Your task to perform on an android device: toggle notification dots Image 0: 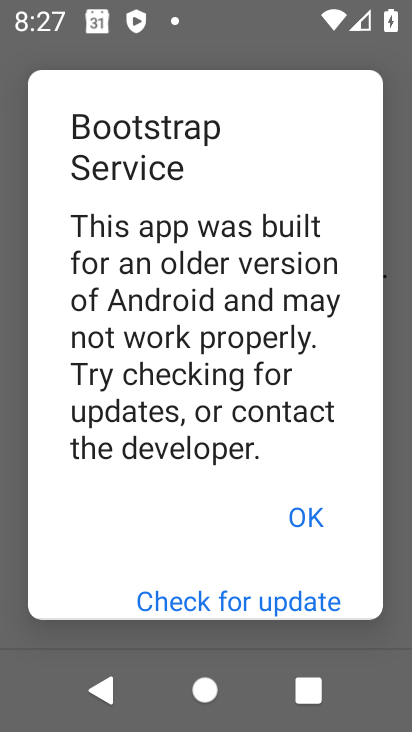
Step 0: press home button
Your task to perform on an android device: toggle notification dots Image 1: 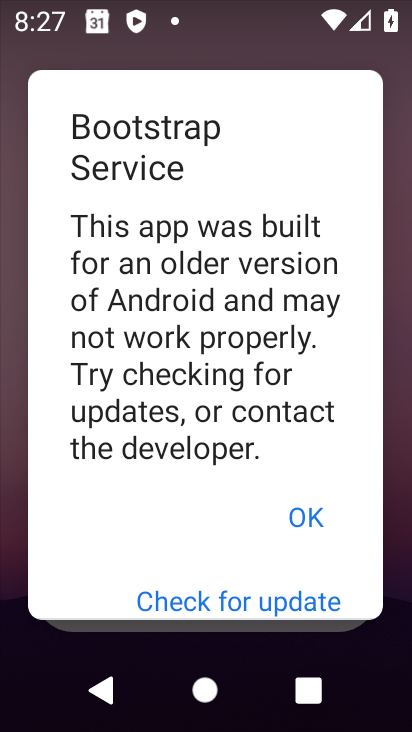
Step 1: click (296, 510)
Your task to perform on an android device: toggle notification dots Image 2: 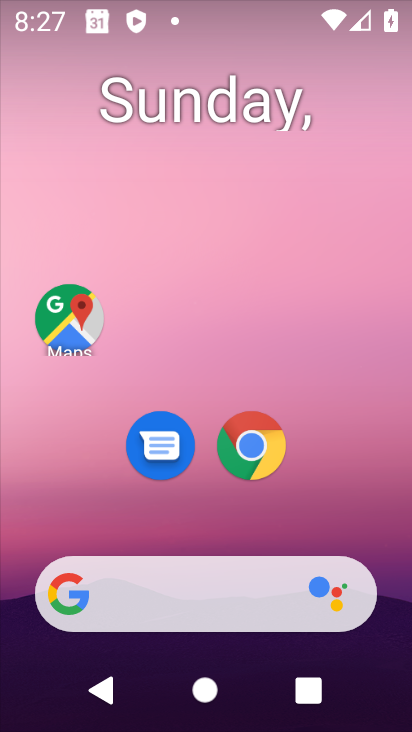
Step 2: drag from (342, 482) to (297, 68)
Your task to perform on an android device: toggle notification dots Image 3: 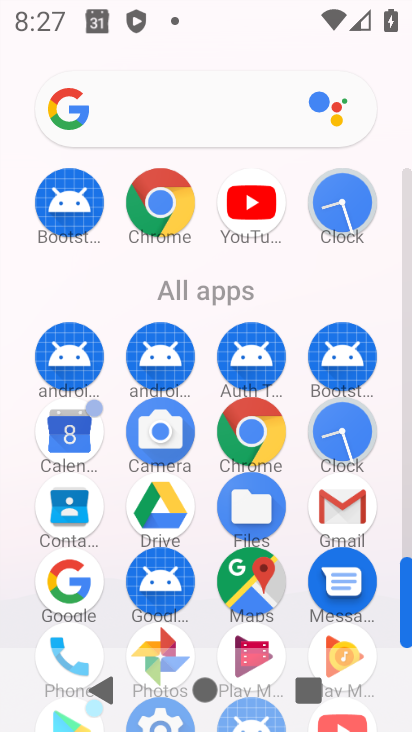
Step 3: drag from (197, 610) to (232, 303)
Your task to perform on an android device: toggle notification dots Image 4: 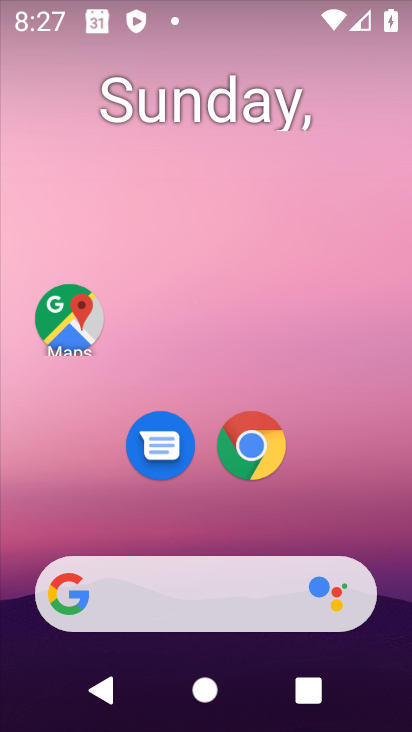
Step 4: drag from (392, 475) to (307, 163)
Your task to perform on an android device: toggle notification dots Image 5: 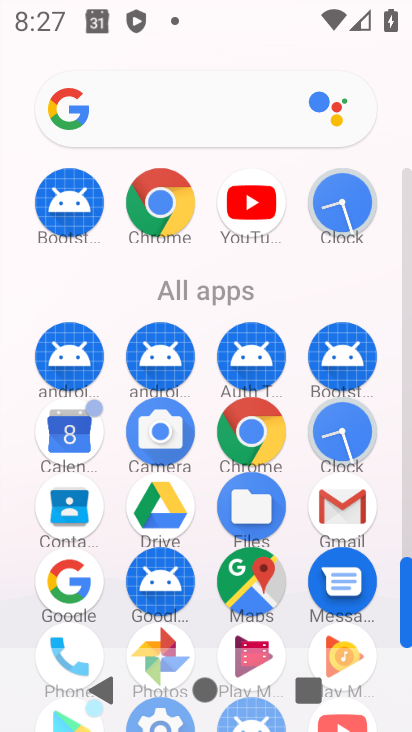
Step 5: drag from (207, 613) to (201, 263)
Your task to perform on an android device: toggle notification dots Image 6: 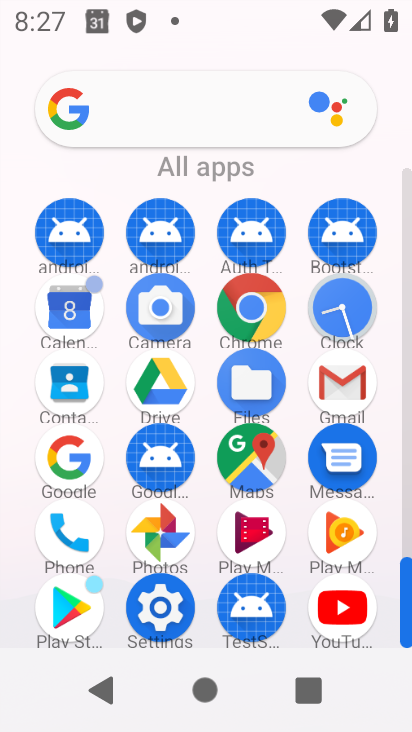
Step 6: click (169, 595)
Your task to perform on an android device: toggle notification dots Image 7: 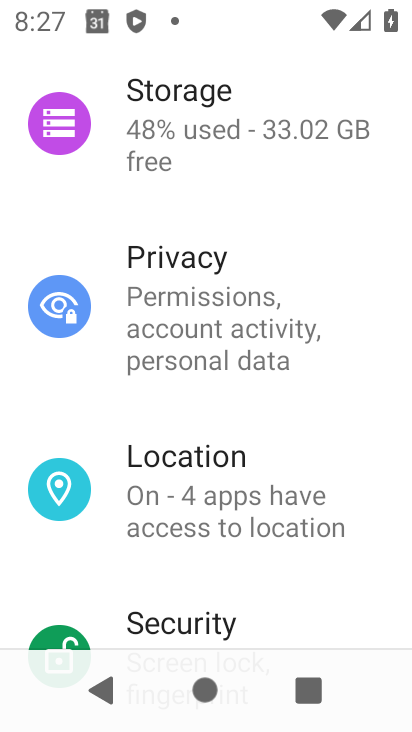
Step 7: drag from (160, 565) to (205, 182)
Your task to perform on an android device: toggle notification dots Image 8: 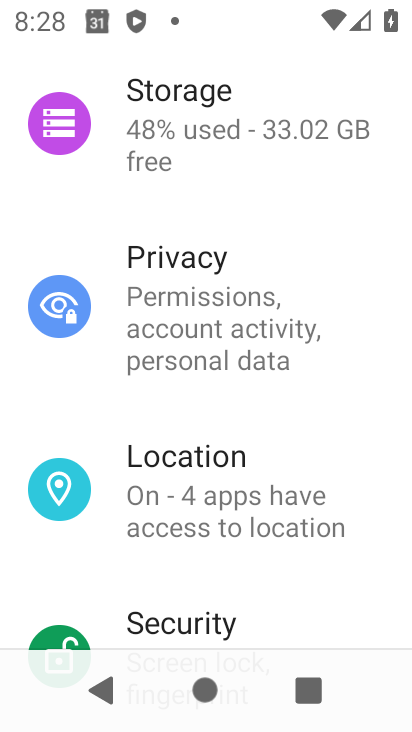
Step 8: drag from (365, 557) to (338, 176)
Your task to perform on an android device: toggle notification dots Image 9: 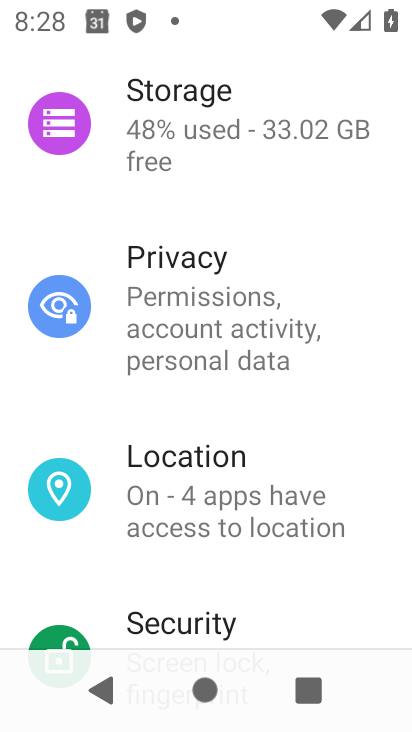
Step 9: drag from (332, 592) to (329, 175)
Your task to perform on an android device: toggle notification dots Image 10: 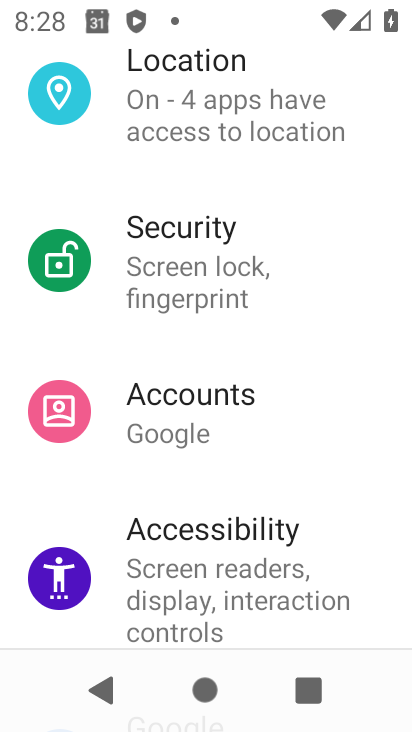
Step 10: drag from (280, 568) to (294, 232)
Your task to perform on an android device: toggle notification dots Image 11: 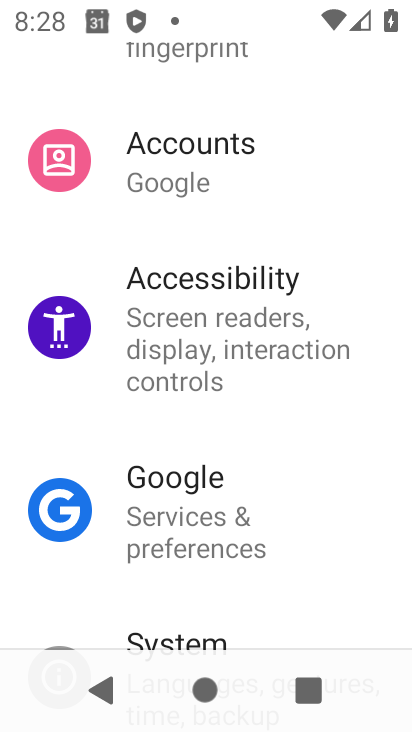
Step 11: drag from (254, 535) to (321, 209)
Your task to perform on an android device: toggle notification dots Image 12: 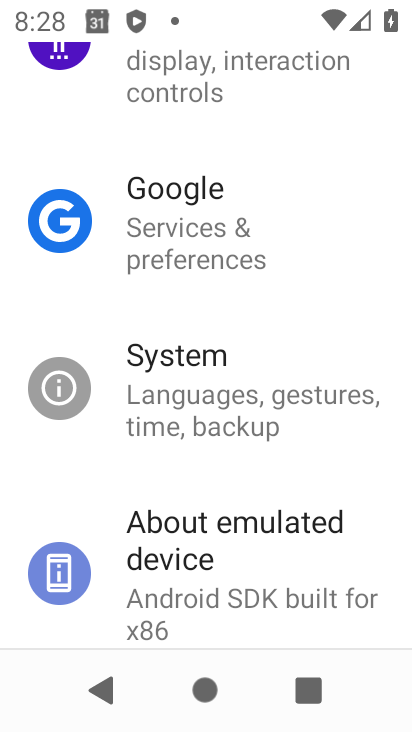
Step 12: drag from (257, 502) to (314, 167)
Your task to perform on an android device: toggle notification dots Image 13: 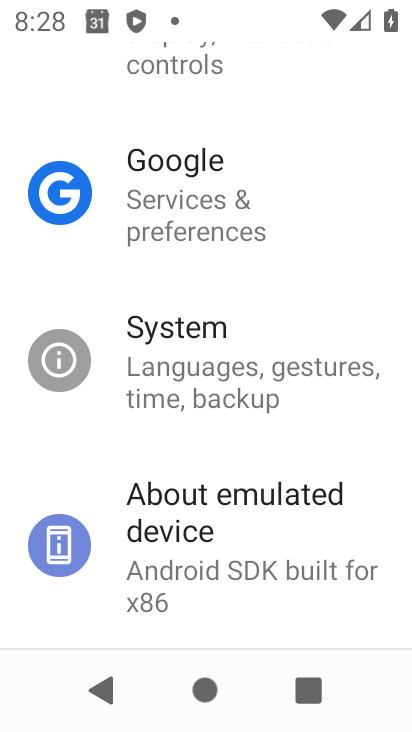
Step 13: drag from (308, 193) to (280, 525)
Your task to perform on an android device: toggle notification dots Image 14: 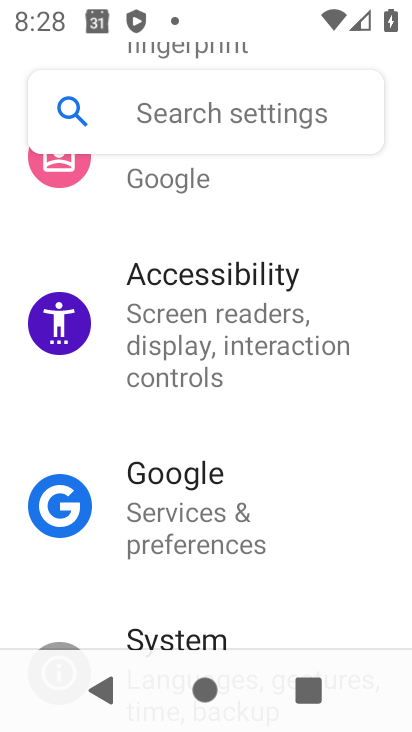
Step 14: drag from (291, 202) to (227, 529)
Your task to perform on an android device: toggle notification dots Image 15: 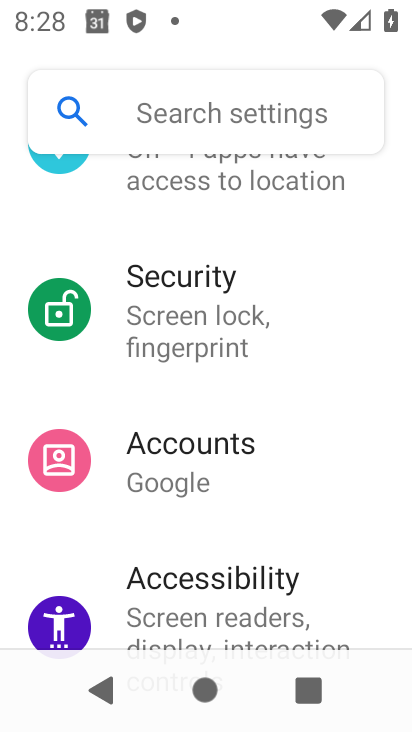
Step 15: drag from (226, 294) to (214, 587)
Your task to perform on an android device: toggle notification dots Image 16: 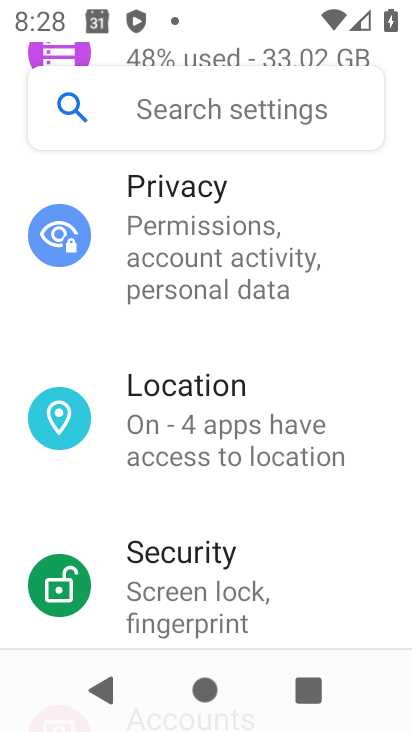
Step 16: drag from (241, 332) to (234, 595)
Your task to perform on an android device: toggle notification dots Image 17: 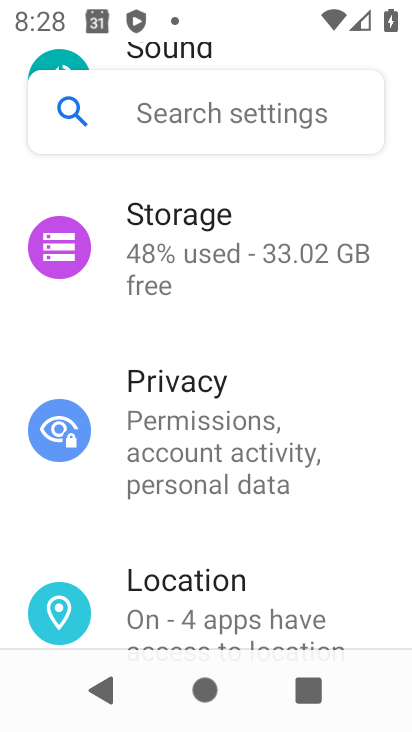
Step 17: drag from (245, 249) to (229, 588)
Your task to perform on an android device: toggle notification dots Image 18: 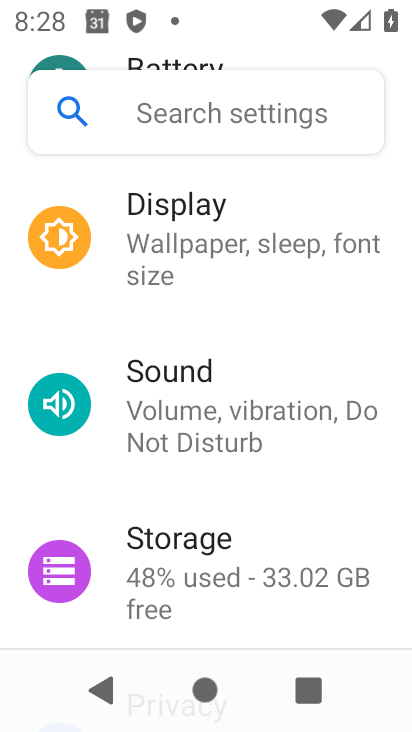
Step 18: drag from (215, 264) to (221, 511)
Your task to perform on an android device: toggle notification dots Image 19: 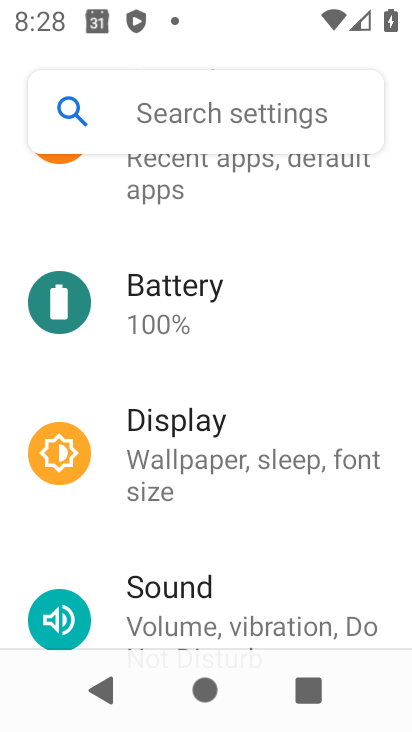
Step 19: drag from (311, 311) to (279, 545)
Your task to perform on an android device: toggle notification dots Image 20: 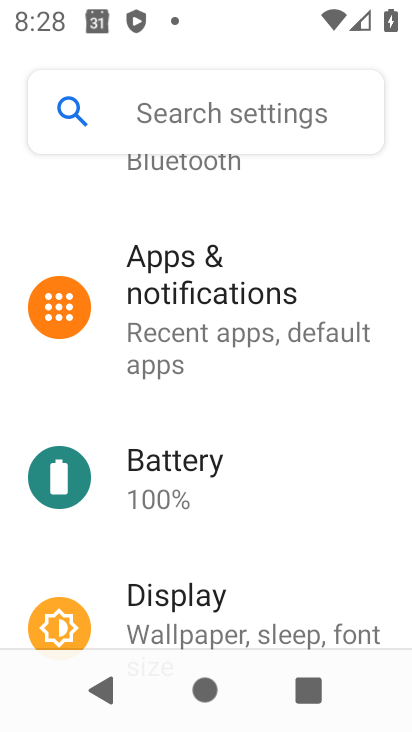
Step 20: click (271, 345)
Your task to perform on an android device: toggle notification dots Image 21: 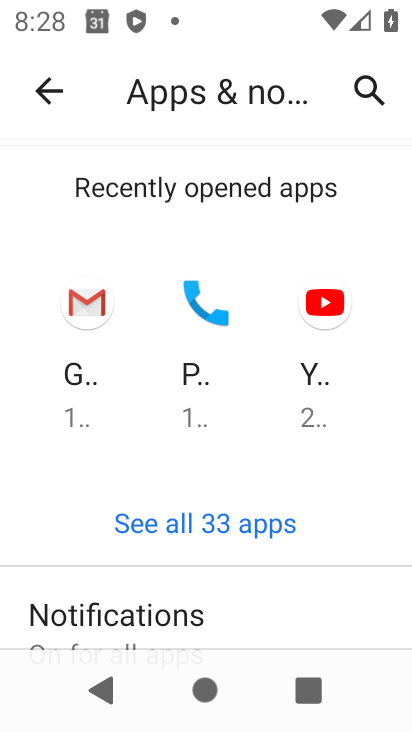
Step 21: drag from (330, 623) to (333, 153)
Your task to perform on an android device: toggle notification dots Image 22: 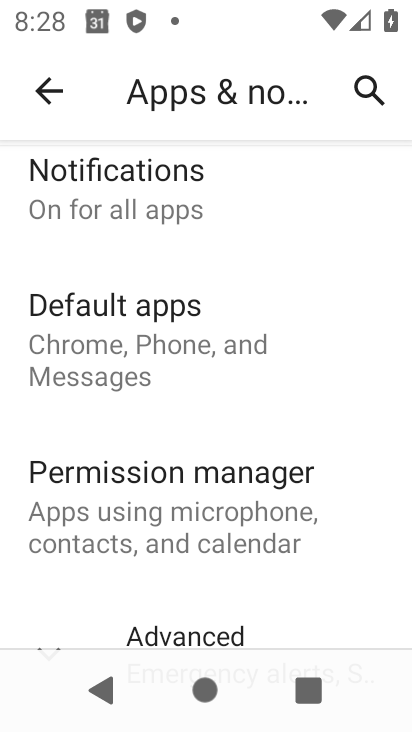
Step 22: drag from (264, 434) to (277, 116)
Your task to perform on an android device: toggle notification dots Image 23: 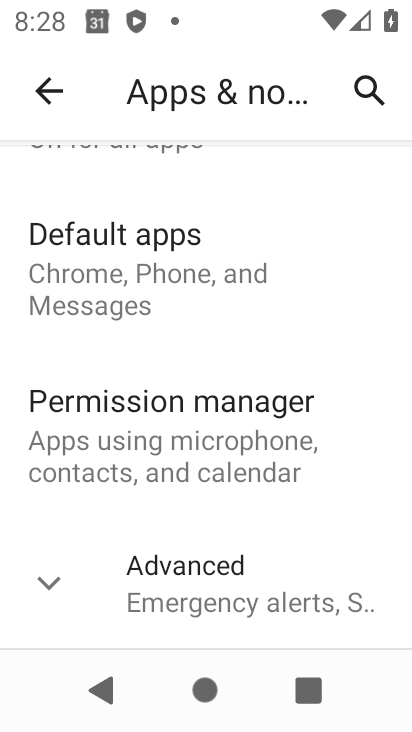
Step 23: click (210, 576)
Your task to perform on an android device: toggle notification dots Image 24: 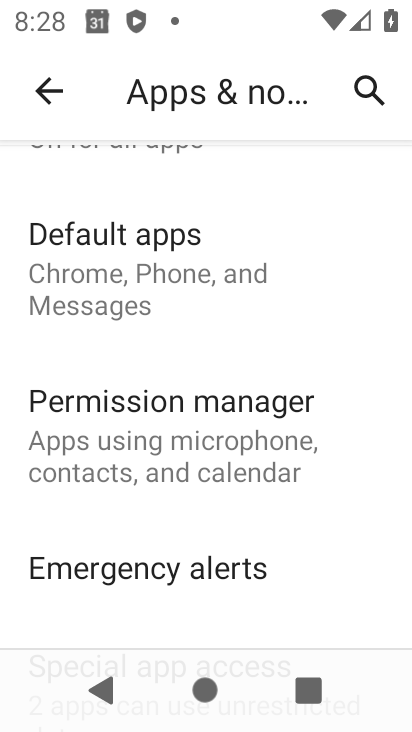
Step 24: drag from (281, 580) to (323, 167)
Your task to perform on an android device: toggle notification dots Image 25: 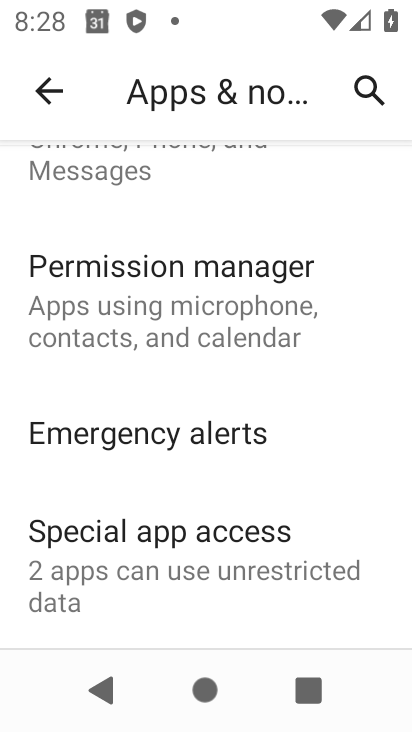
Step 25: drag from (250, 259) to (252, 602)
Your task to perform on an android device: toggle notification dots Image 26: 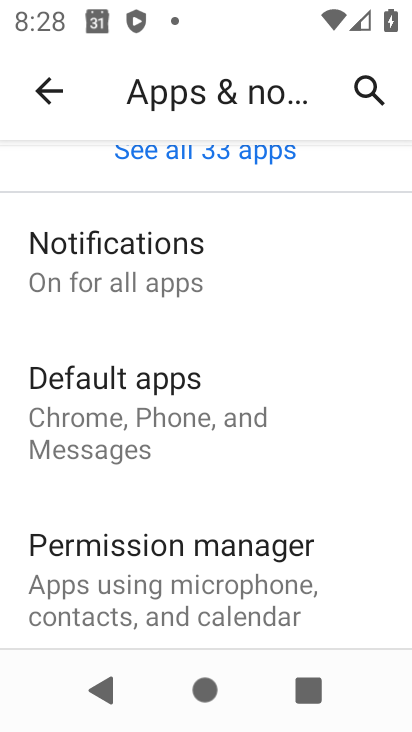
Step 26: drag from (141, 204) to (223, 513)
Your task to perform on an android device: toggle notification dots Image 27: 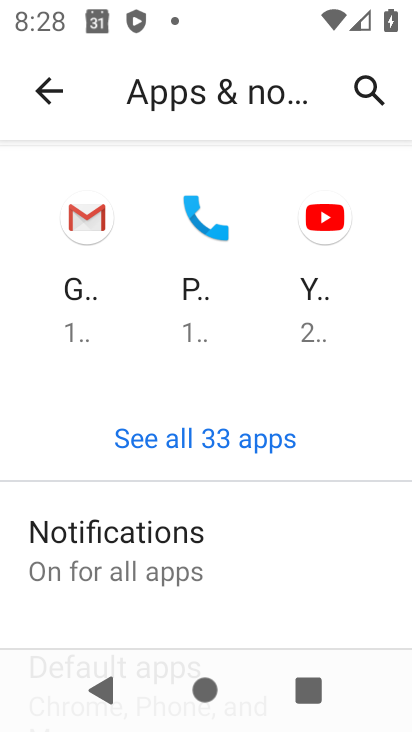
Step 27: click (168, 528)
Your task to perform on an android device: toggle notification dots Image 28: 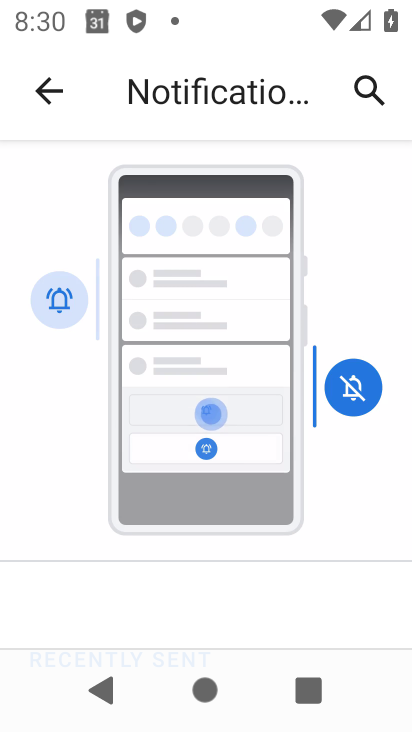
Step 28: drag from (335, 574) to (220, 0)
Your task to perform on an android device: toggle notification dots Image 29: 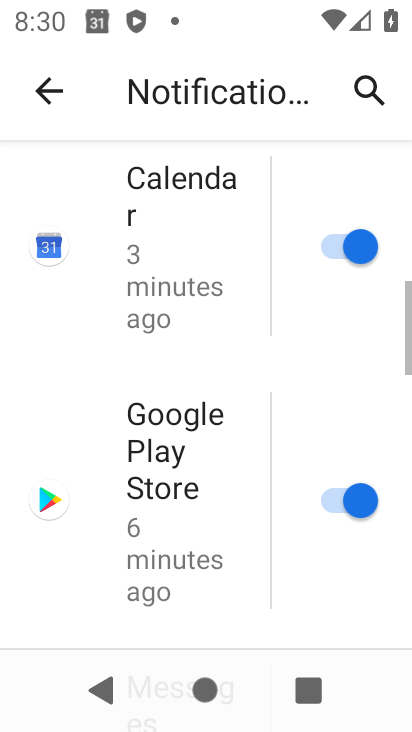
Step 29: drag from (196, 513) to (266, 76)
Your task to perform on an android device: toggle notification dots Image 30: 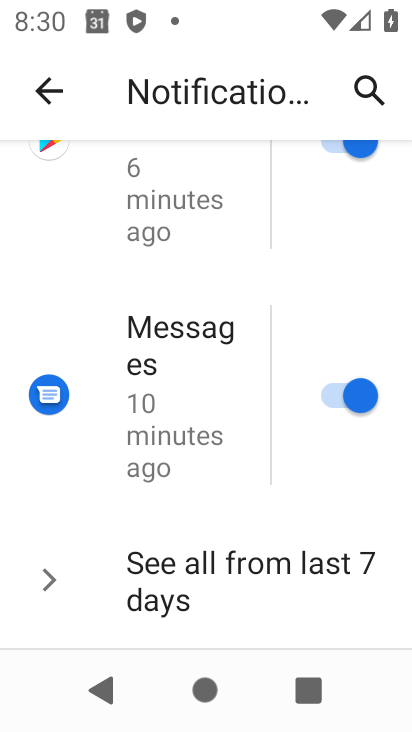
Step 30: drag from (255, 516) to (279, 117)
Your task to perform on an android device: toggle notification dots Image 31: 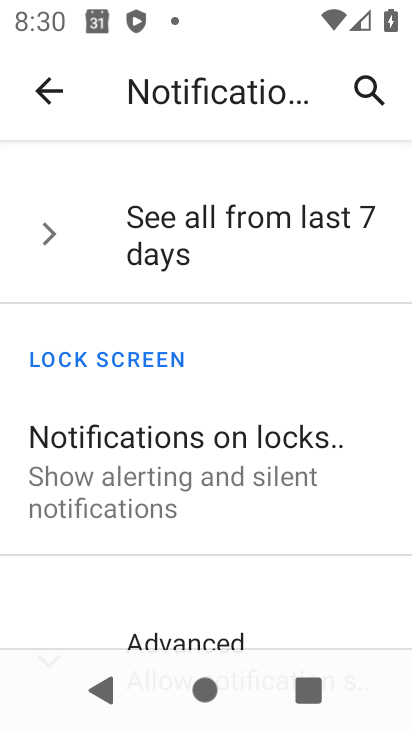
Step 31: drag from (256, 525) to (294, 127)
Your task to perform on an android device: toggle notification dots Image 32: 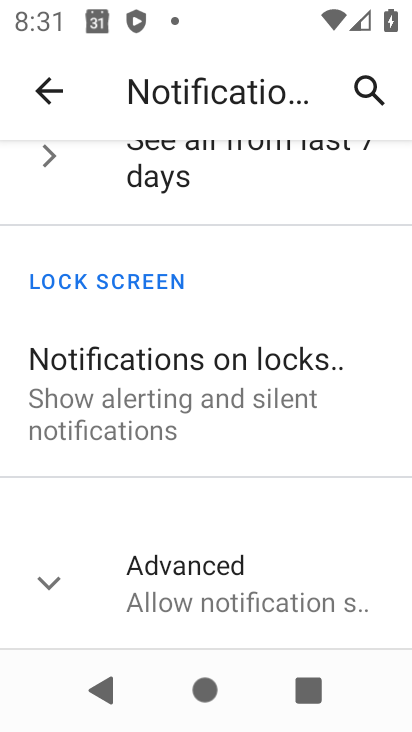
Step 32: click (186, 589)
Your task to perform on an android device: toggle notification dots Image 33: 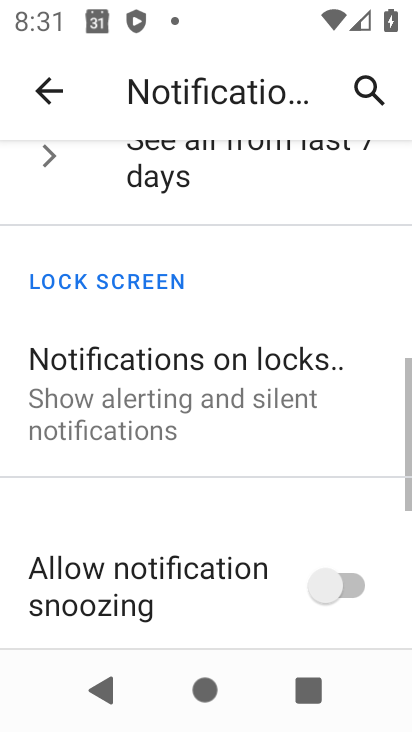
Step 33: drag from (213, 525) to (271, 173)
Your task to perform on an android device: toggle notification dots Image 34: 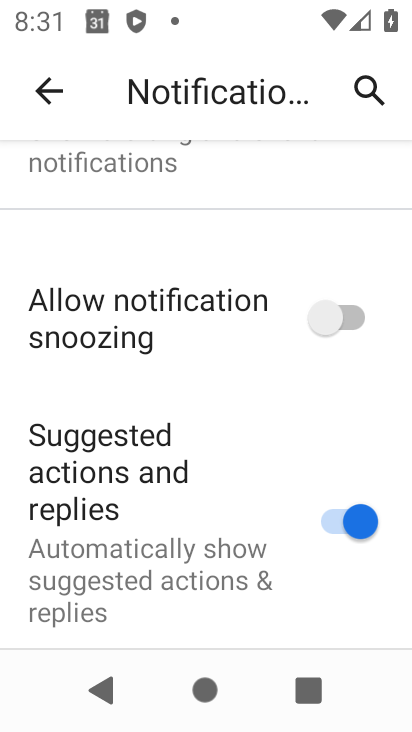
Step 34: drag from (212, 576) to (237, 176)
Your task to perform on an android device: toggle notification dots Image 35: 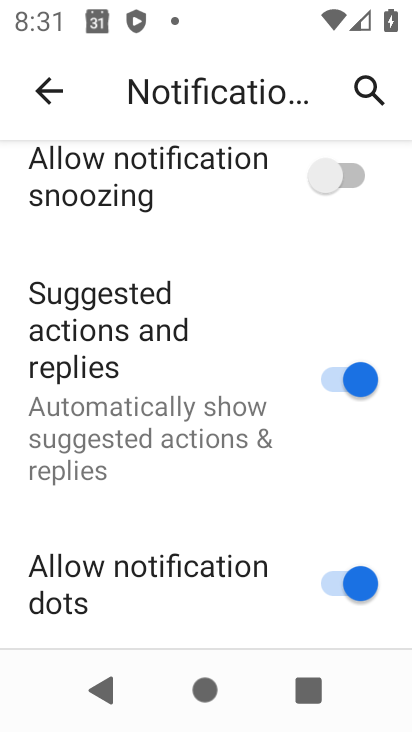
Step 35: click (366, 578)
Your task to perform on an android device: toggle notification dots Image 36: 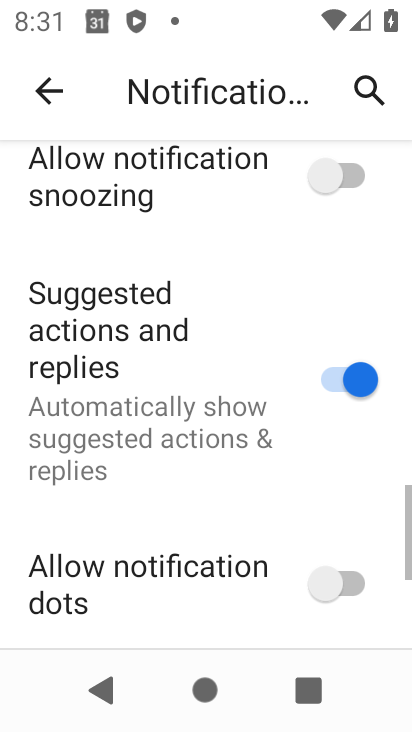
Step 36: task complete